Your task to perform on an android device: open app "Etsy: Buy & Sell Unique Items" (install if not already installed) and go to login screen Image 0: 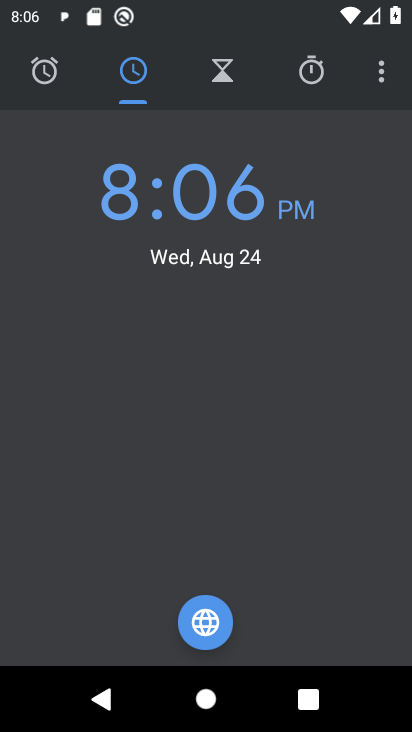
Step 0: press home button
Your task to perform on an android device: open app "Etsy: Buy & Sell Unique Items" (install if not already installed) and go to login screen Image 1: 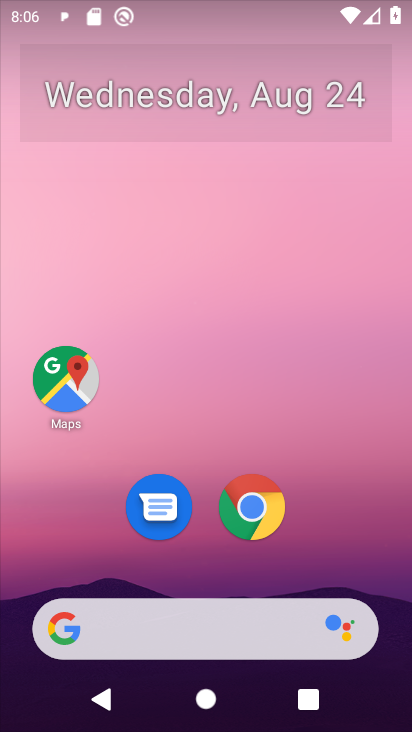
Step 1: drag from (375, 566) to (376, 44)
Your task to perform on an android device: open app "Etsy: Buy & Sell Unique Items" (install if not already installed) and go to login screen Image 2: 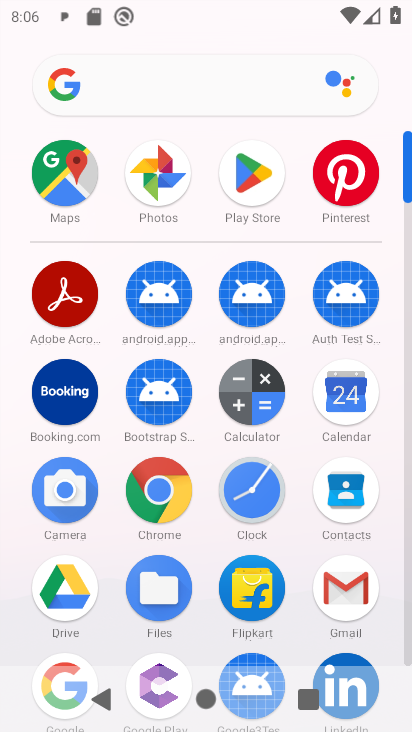
Step 2: click (244, 169)
Your task to perform on an android device: open app "Etsy: Buy & Sell Unique Items" (install if not already installed) and go to login screen Image 3: 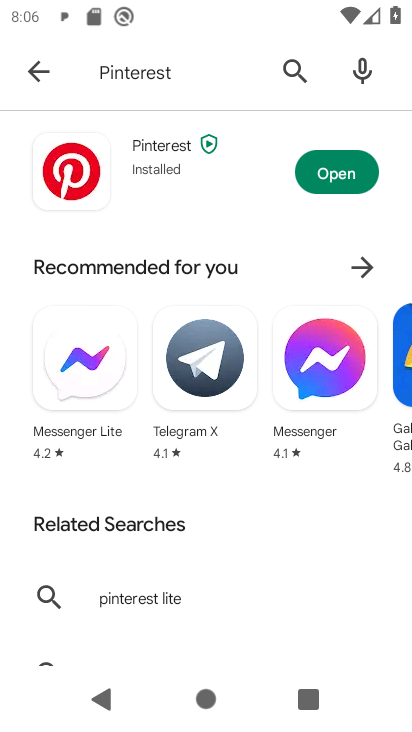
Step 3: press back button
Your task to perform on an android device: open app "Etsy: Buy & Sell Unique Items" (install if not already installed) and go to login screen Image 4: 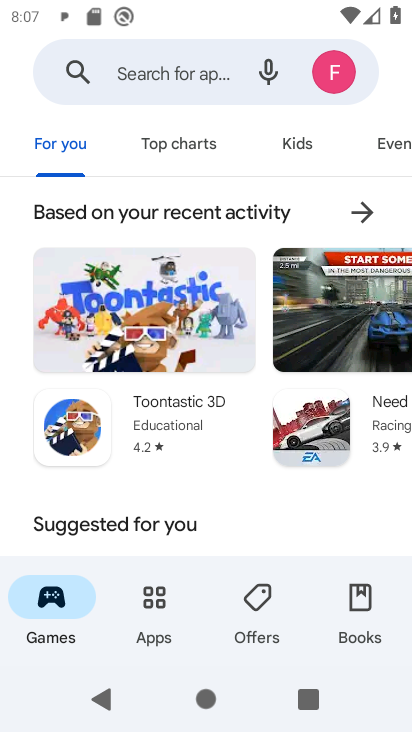
Step 4: click (206, 92)
Your task to perform on an android device: open app "Etsy: Buy & Sell Unique Items" (install if not already installed) and go to login screen Image 5: 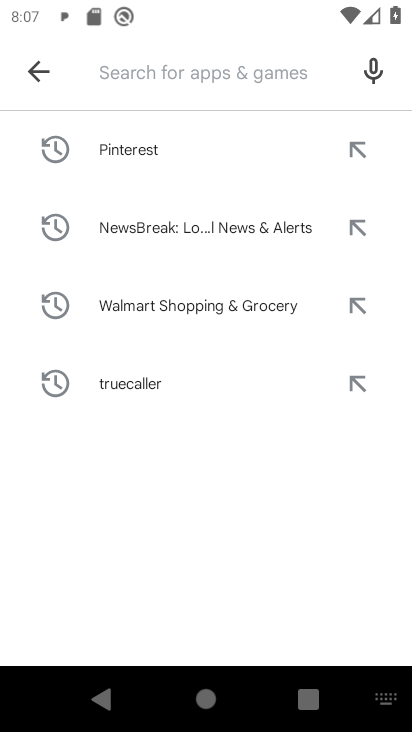
Step 5: type "Etsy: Buy & Sell Unique Items"
Your task to perform on an android device: open app "Etsy: Buy & Sell Unique Items" (install if not already installed) and go to login screen Image 6: 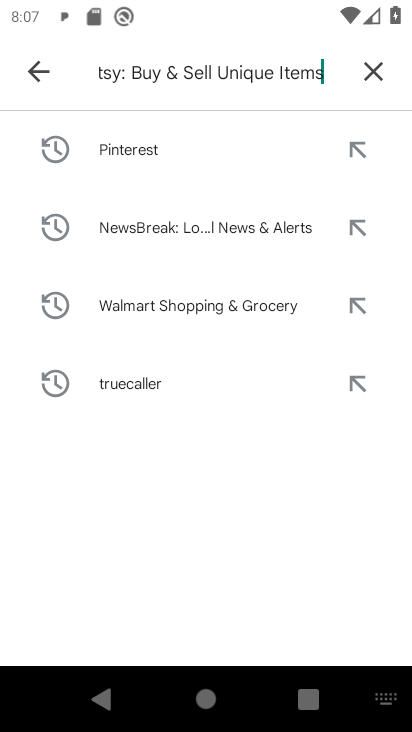
Step 6: press enter
Your task to perform on an android device: open app "Etsy: Buy & Sell Unique Items" (install if not already installed) and go to login screen Image 7: 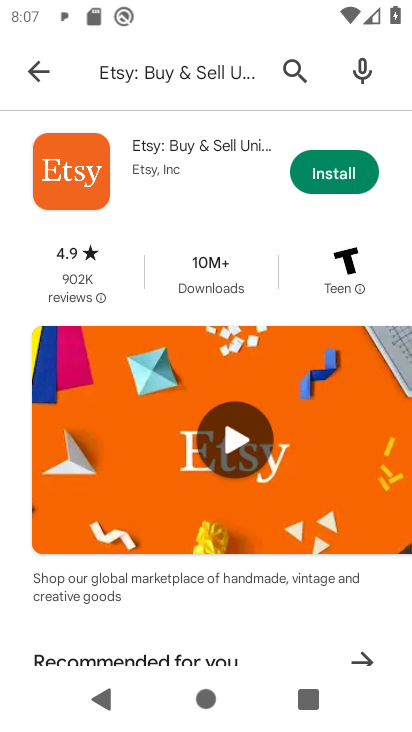
Step 7: click (333, 171)
Your task to perform on an android device: open app "Etsy: Buy & Sell Unique Items" (install if not already installed) and go to login screen Image 8: 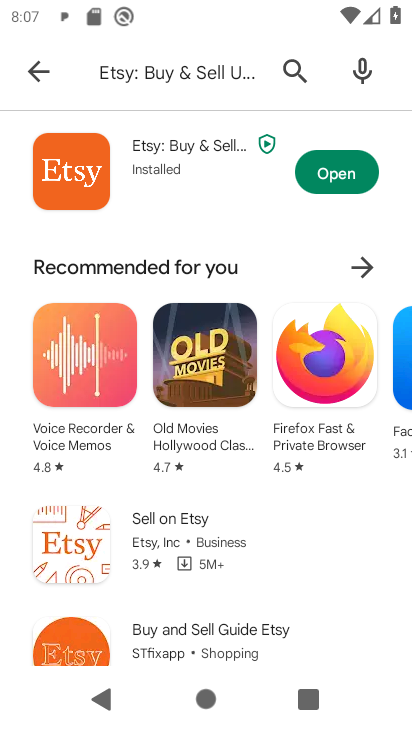
Step 8: click (339, 180)
Your task to perform on an android device: open app "Etsy: Buy & Sell Unique Items" (install if not already installed) and go to login screen Image 9: 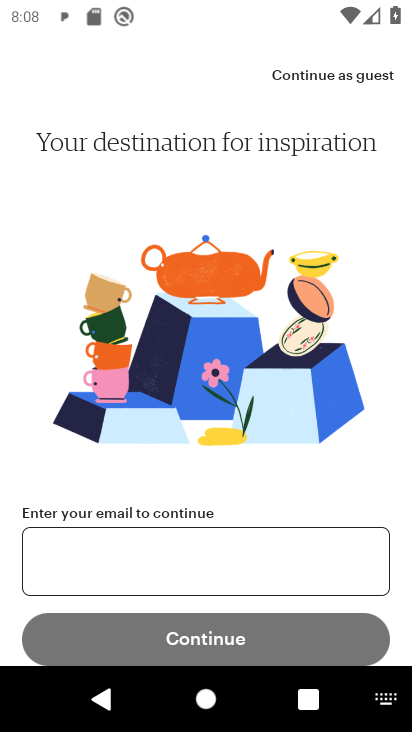
Step 9: task complete